Your task to perform on an android device: turn off wifi Image 0: 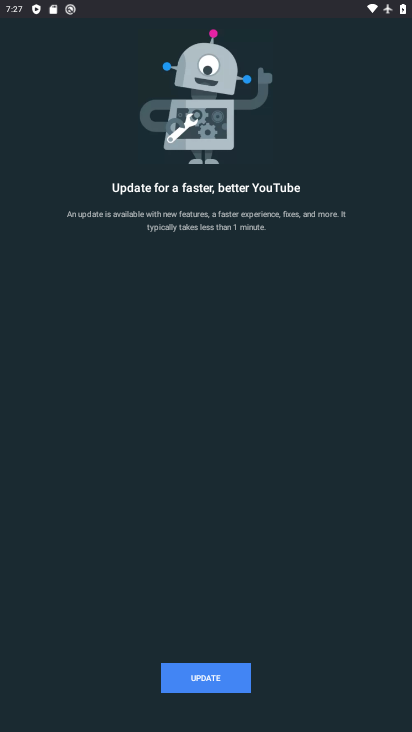
Step 0: press back button
Your task to perform on an android device: turn off wifi Image 1: 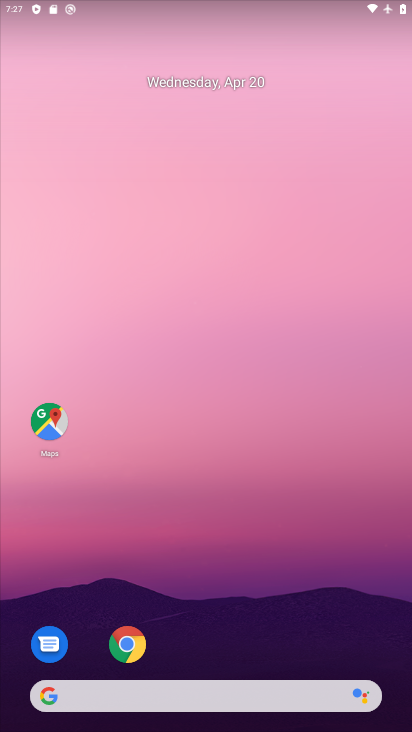
Step 1: drag from (216, 2) to (222, 426)
Your task to perform on an android device: turn off wifi Image 2: 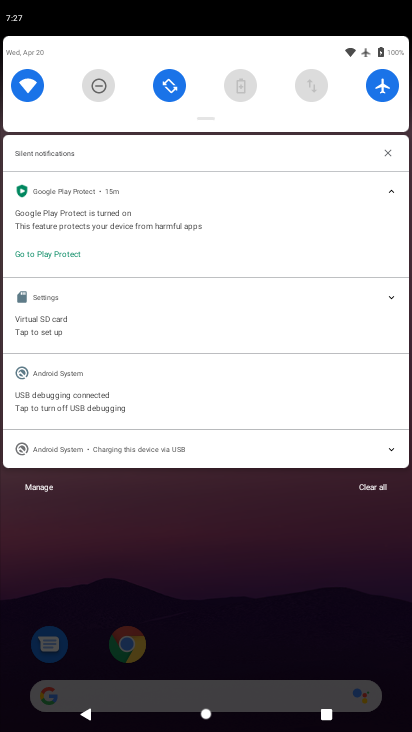
Step 2: drag from (58, 90) to (75, 424)
Your task to perform on an android device: turn off wifi Image 3: 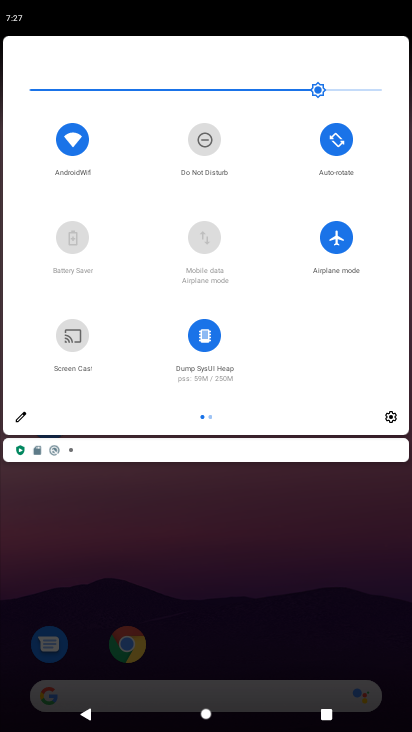
Step 3: click (67, 140)
Your task to perform on an android device: turn off wifi Image 4: 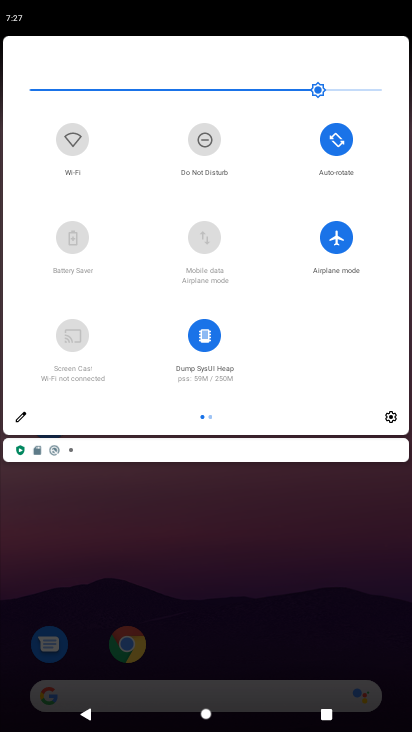
Step 4: task complete